Your task to perform on an android device: View the shopping cart on newegg. Add "dell xps" to the cart on newegg Image 0: 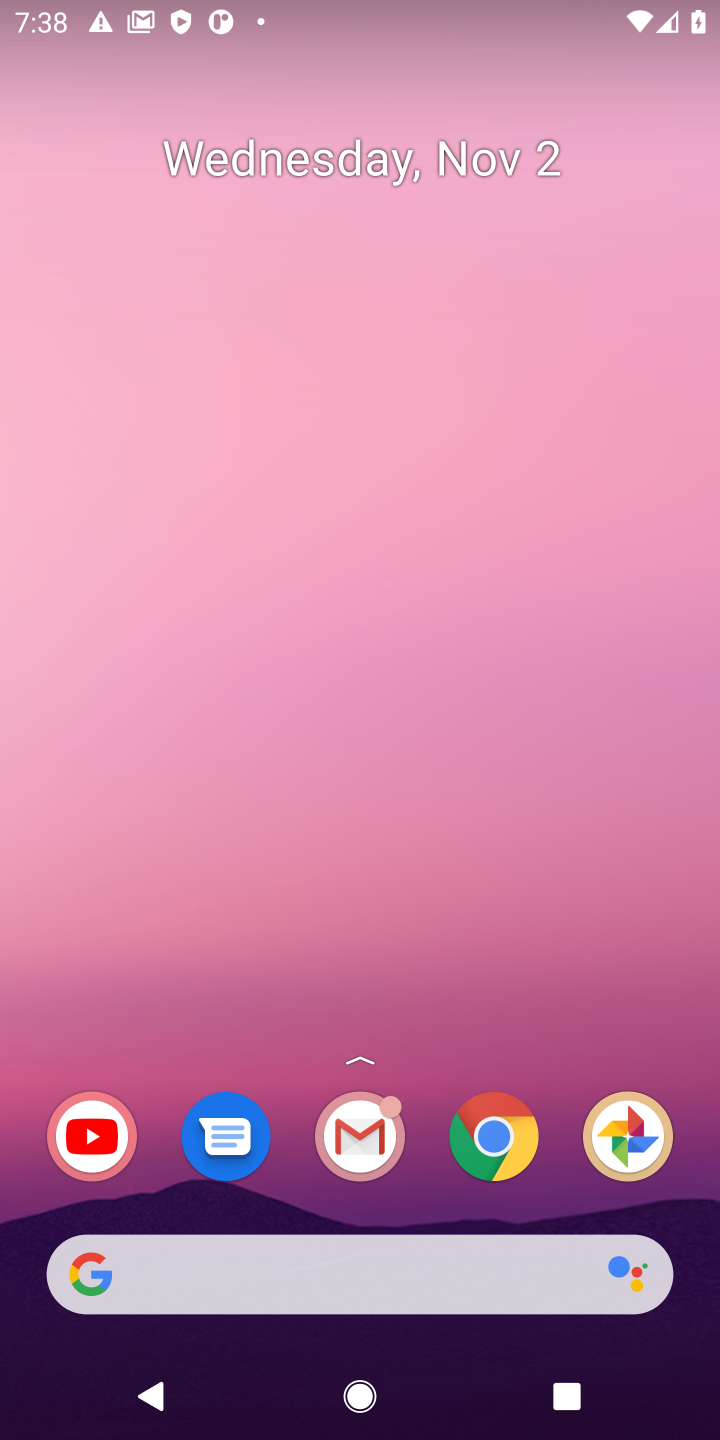
Step 0: drag from (405, 301) to (458, 48)
Your task to perform on an android device: View the shopping cart on newegg. Add "dell xps" to the cart on newegg Image 1: 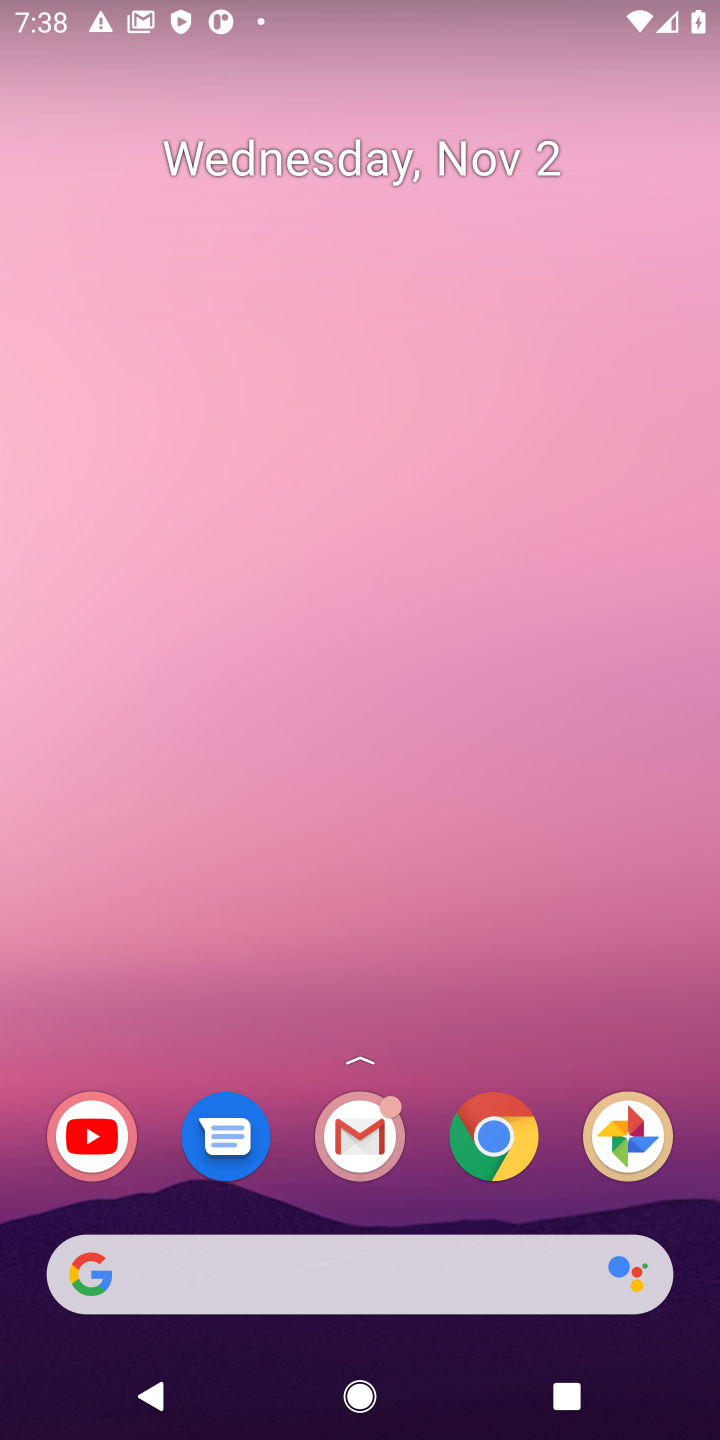
Step 1: drag from (390, 1248) to (92, 31)
Your task to perform on an android device: View the shopping cart on newegg. Add "dell xps" to the cart on newegg Image 2: 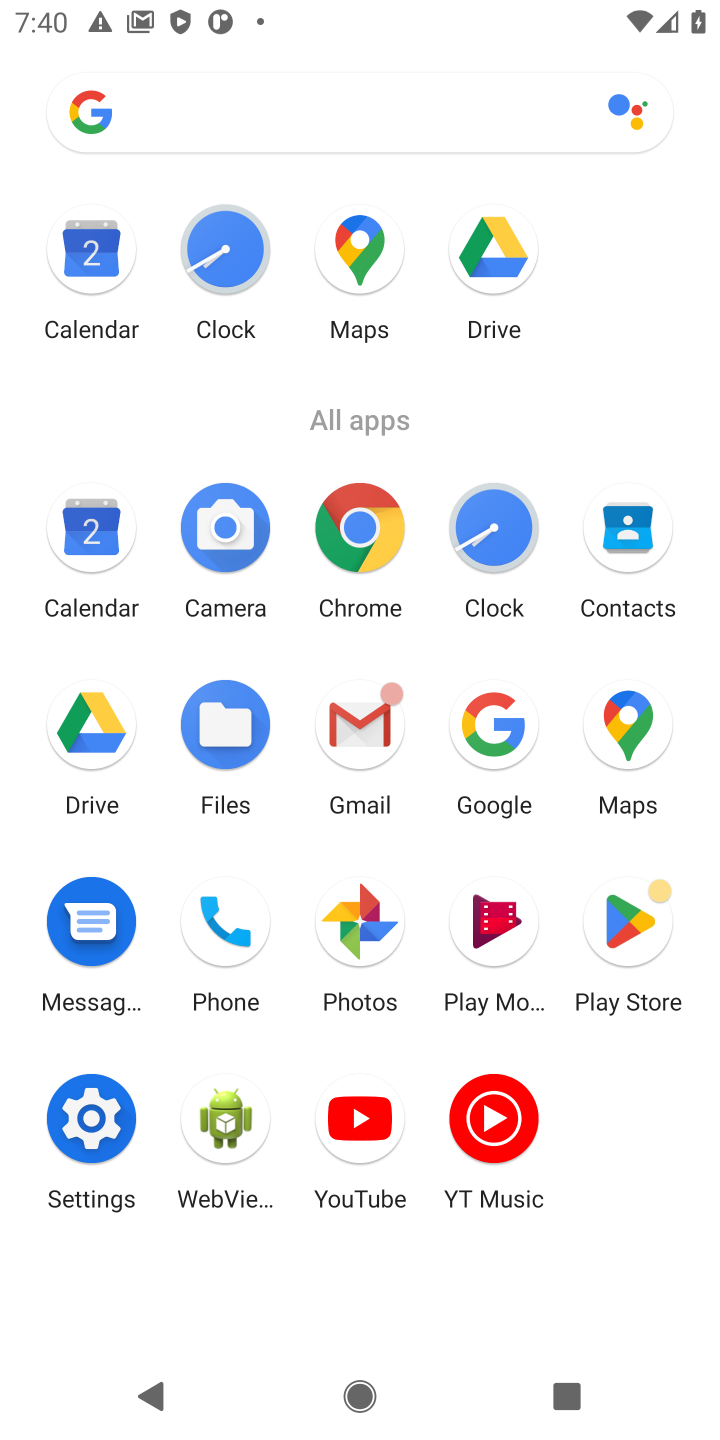
Step 2: click (473, 714)
Your task to perform on an android device: View the shopping cart on newegg. Add "dell xps" to the cart on newegg Image 3: 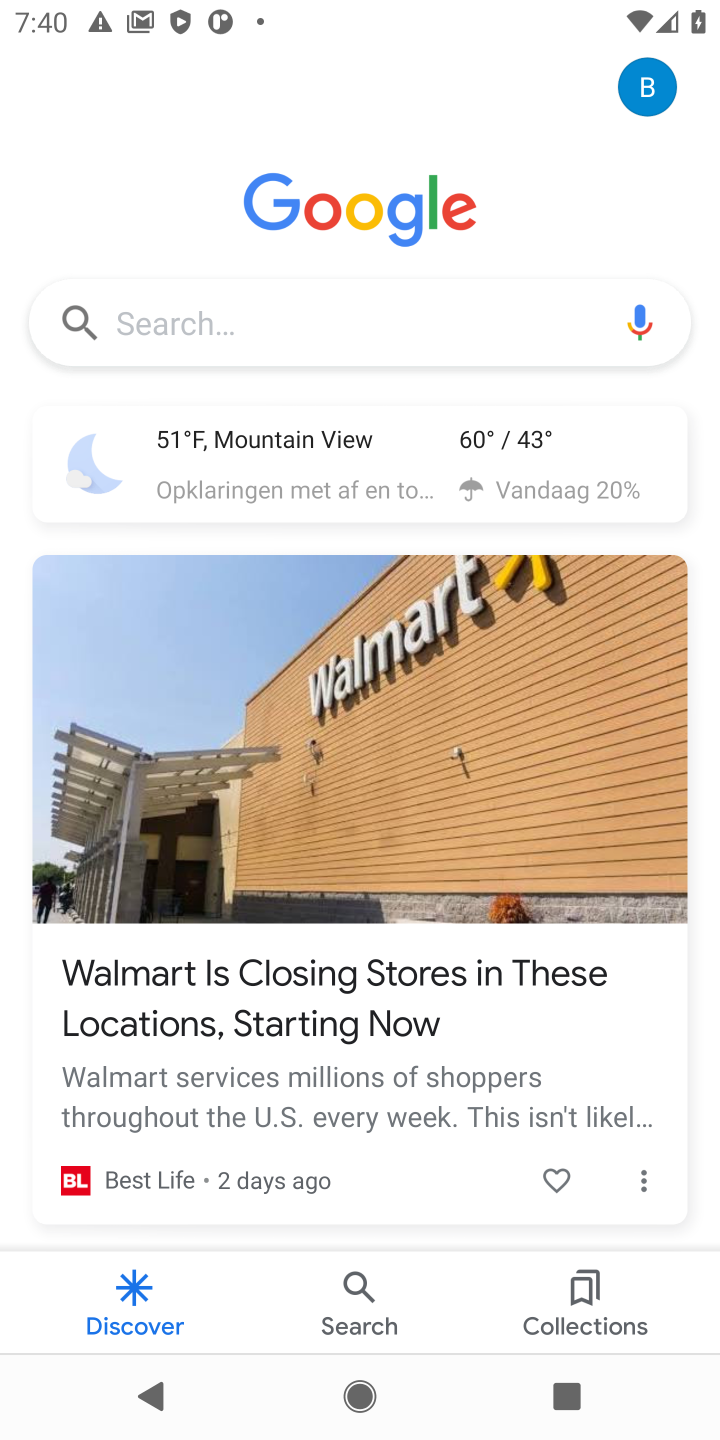
Step 3: click (374, 312)
Your task to perform on an android device: View the shopping cart on newegg. Add "dell xps" to the cart on newegg Image 4: 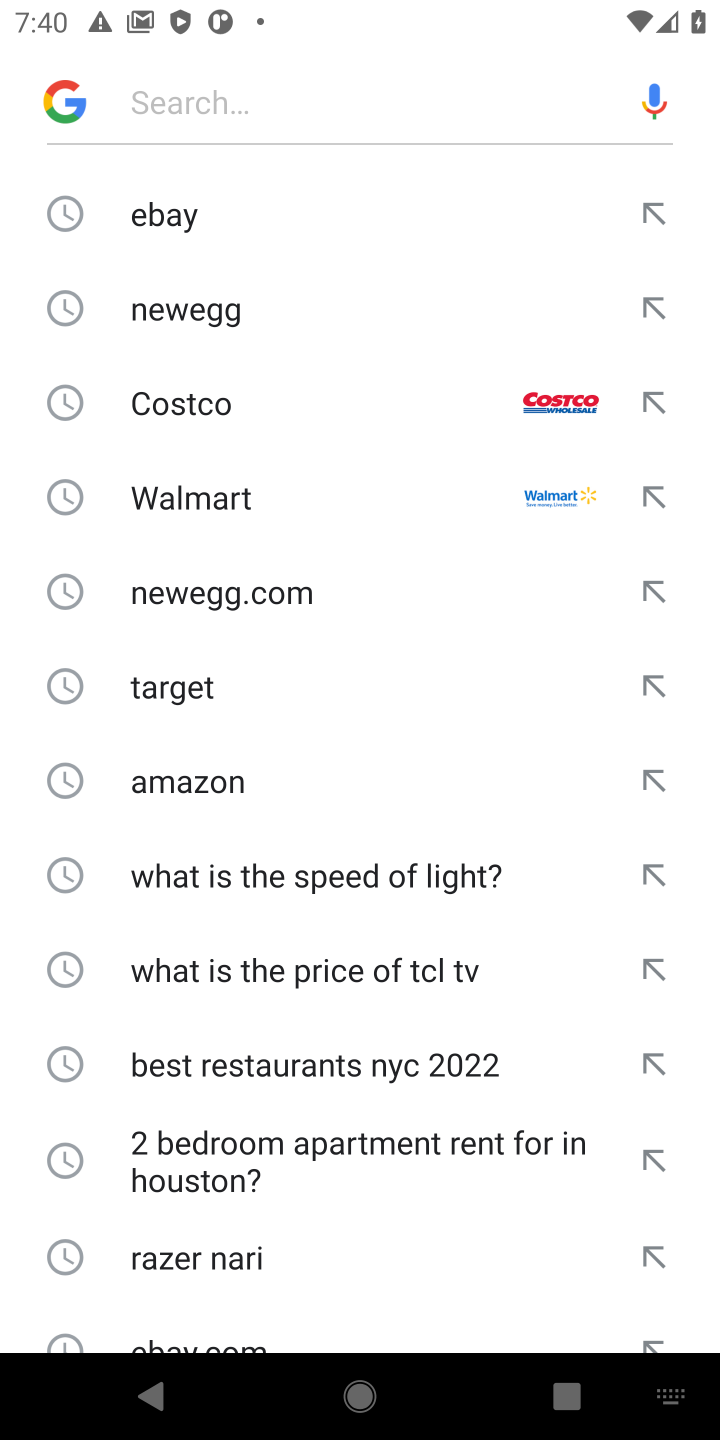
Step 4: type "newegg "
Your task to perform on an android device: View the shopping cart on newegg. Add "dell xps" to the cart on newegg Image 5: 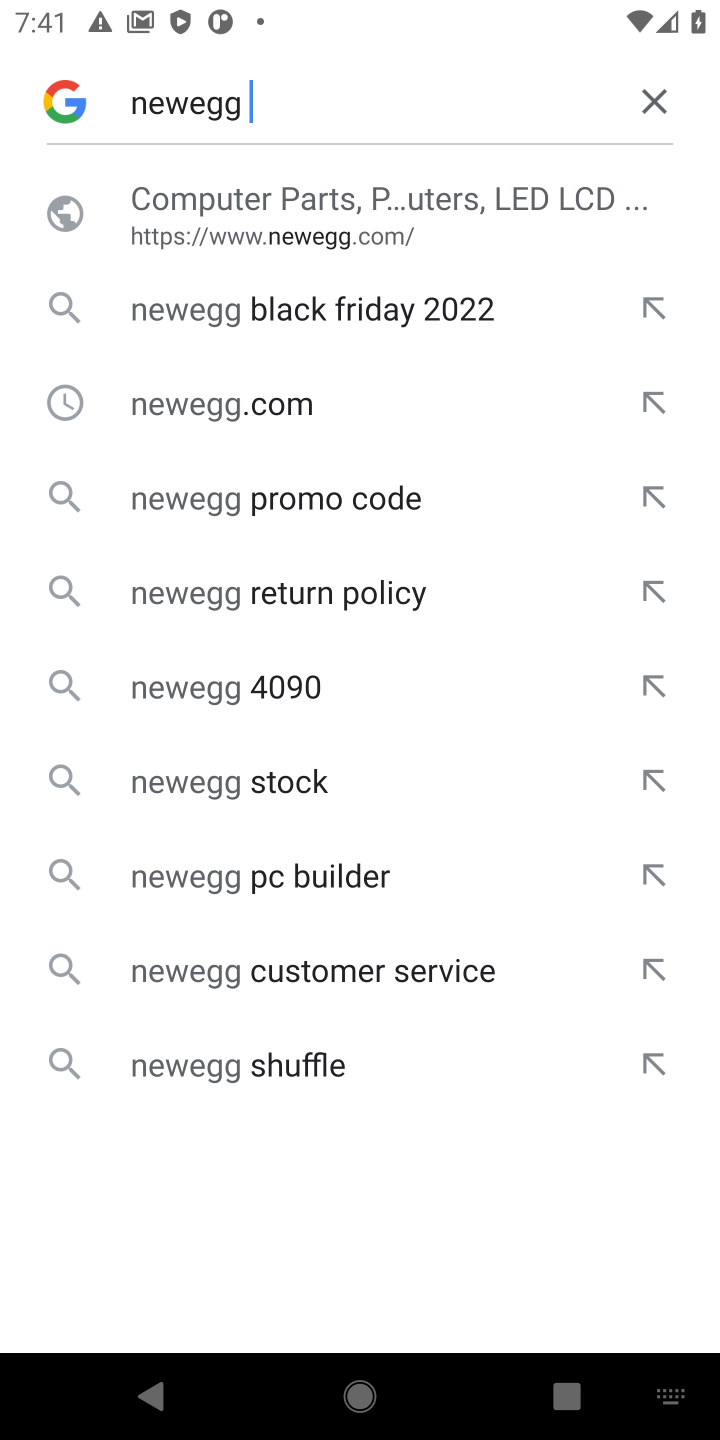
Step 5: click (232, 370)
Your task to perform on an android device: View the shopping cart on newegg. Add "dell xps" to the cart on newegg Image 6: 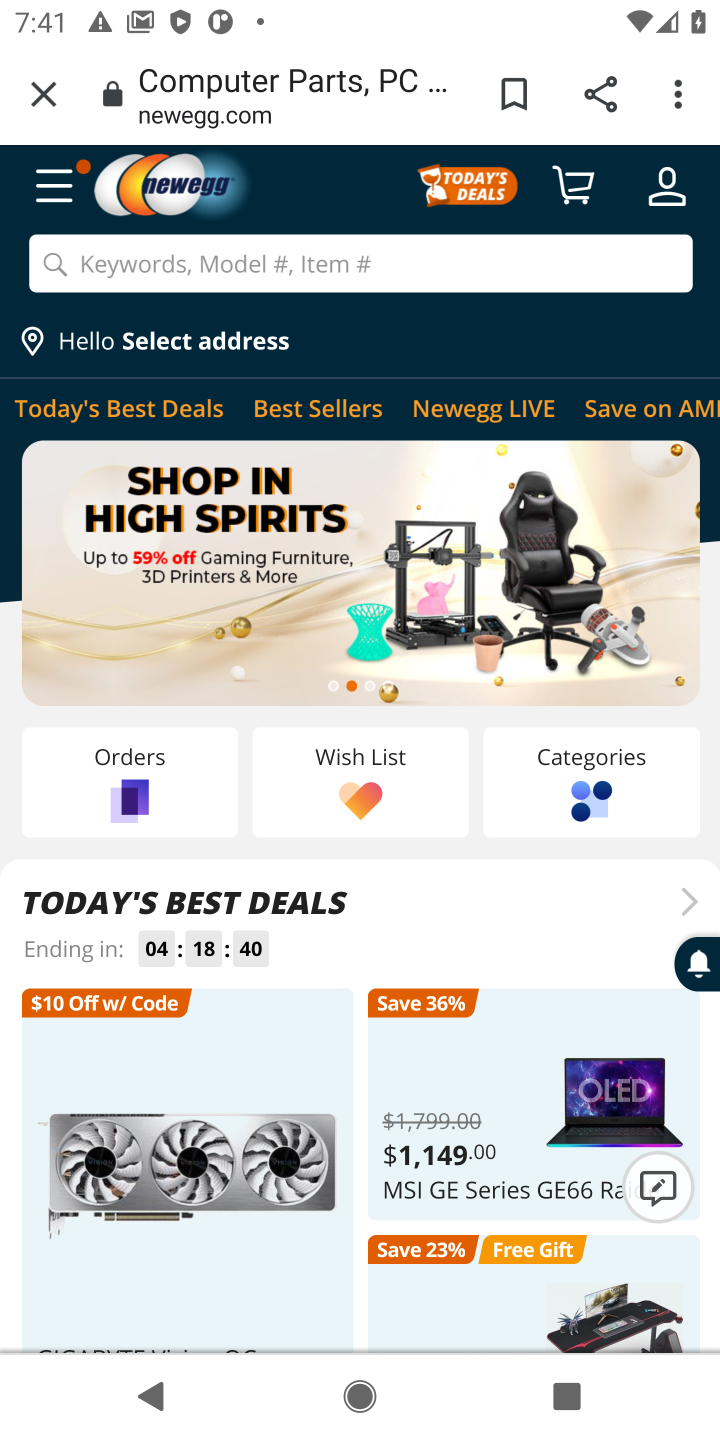
Step 6: click (212, 266)
Your task to perform on an android device: View the shopping cart on newegg. Add "dell xps" to the cart on newegg Image 7: 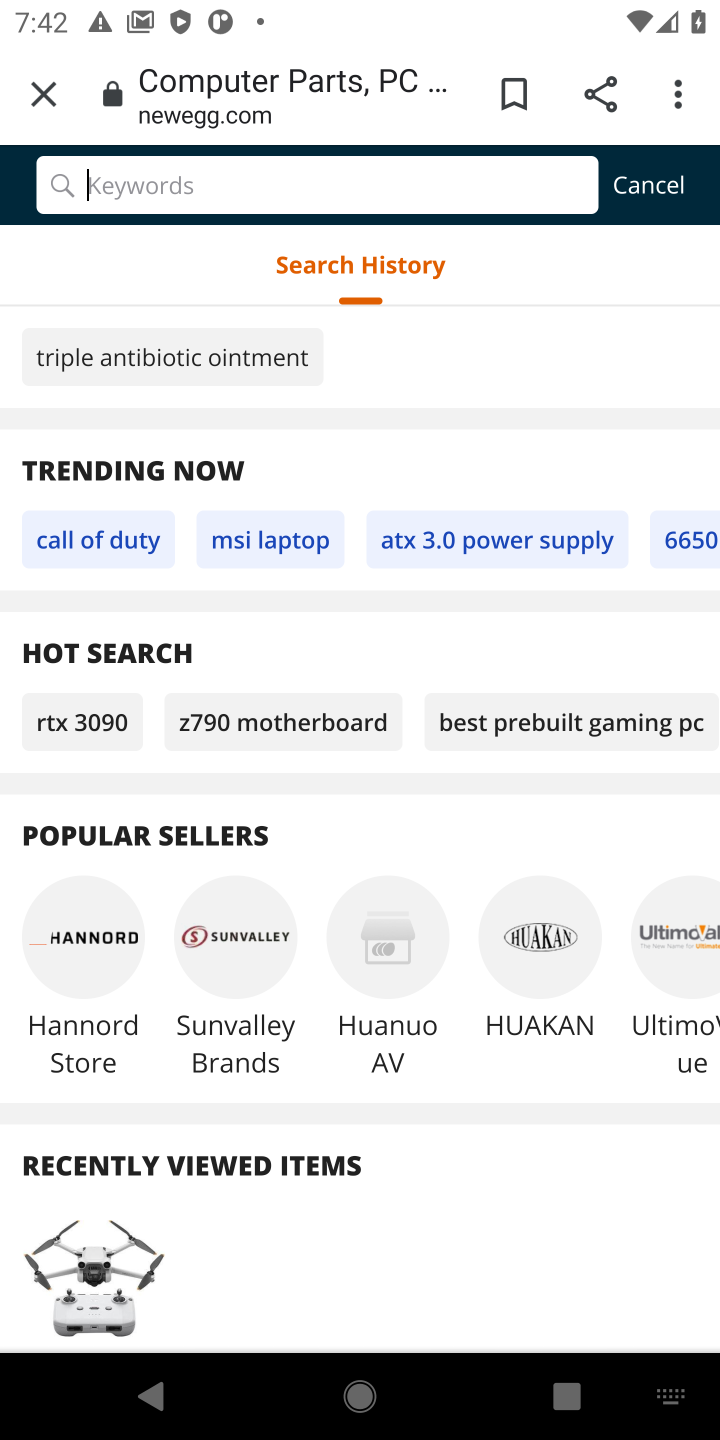
Step 7: click (336, 177)
Your task to perform on an android device: View the shopping cart on newegg. Add "dell xps" to the cart on newegg Image 8: 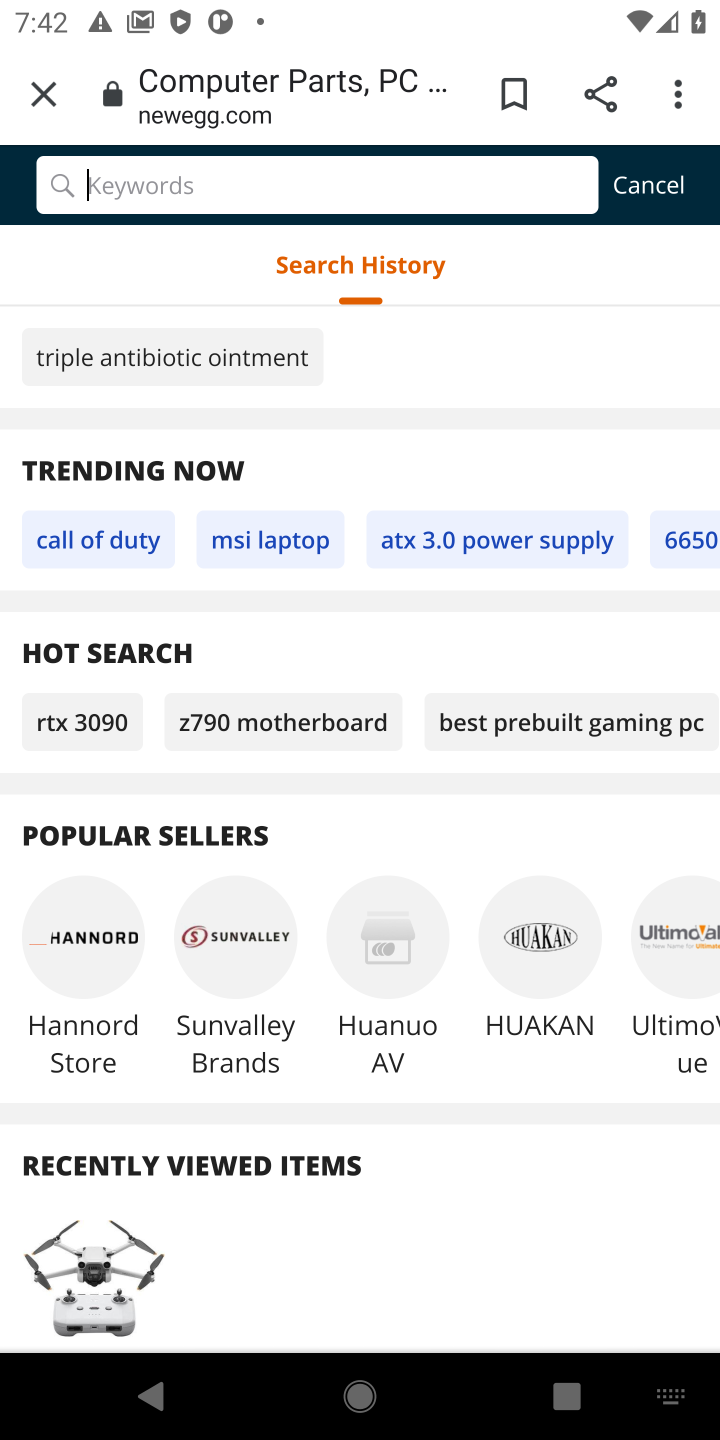
Step 8: type "dell xps" "
Your task to perform on an android device: View the shopping cart on newegg. Add "dell xps" to the cart on newegg Image 9: 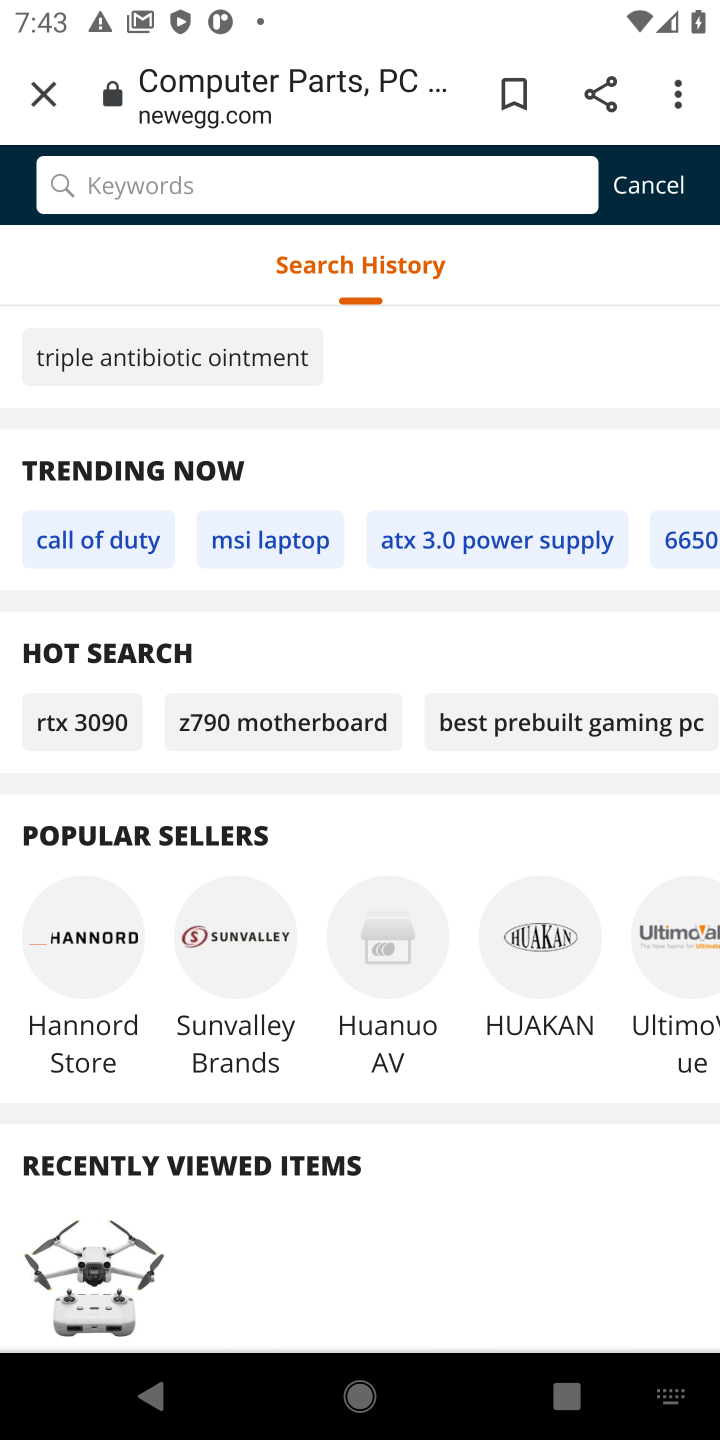
Step 9: drag from (338, 1166) to (377, 434)
Your task to perform on an android device: View the shopping cart on newegg. Add "dell xps" to the cart on newegg Image 10: 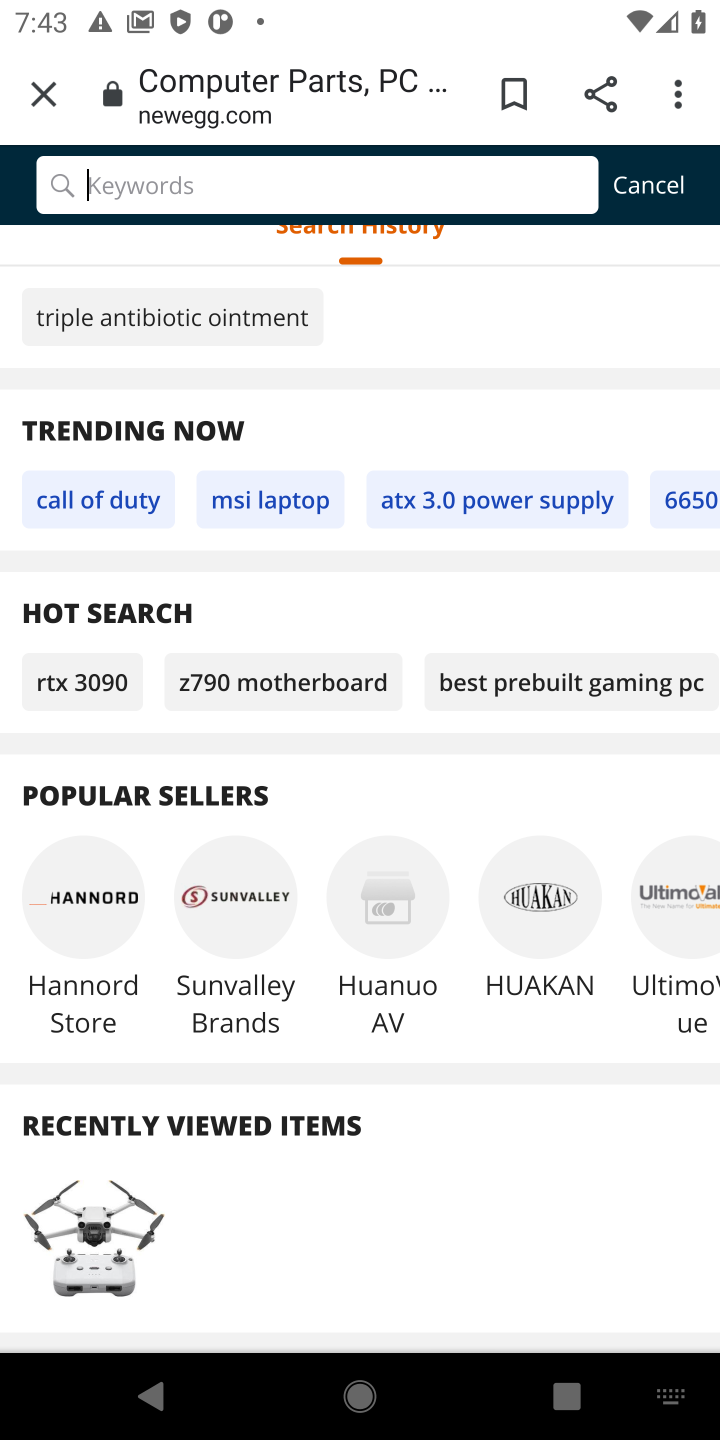
Step 10: drag from (373, 1264) to (386, 118)
Your task to perform on an android device: View the shopping cart on newegg. Add "dell xps" to the cart on newegg Image 11: 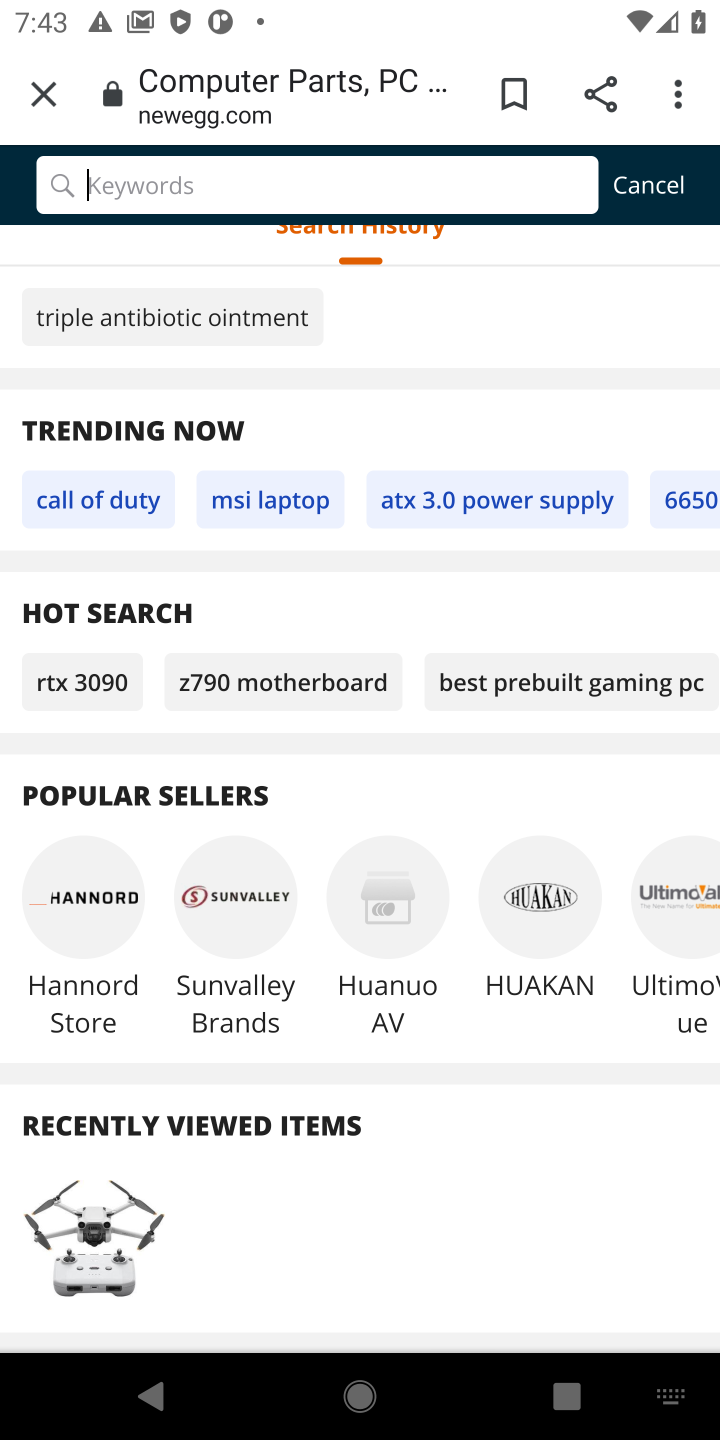
Step 11: click (373, 162)
Your task to perform on an android device: View the shopping cart on newegg. Add "dell xps" to the cart on newegg Image 12: 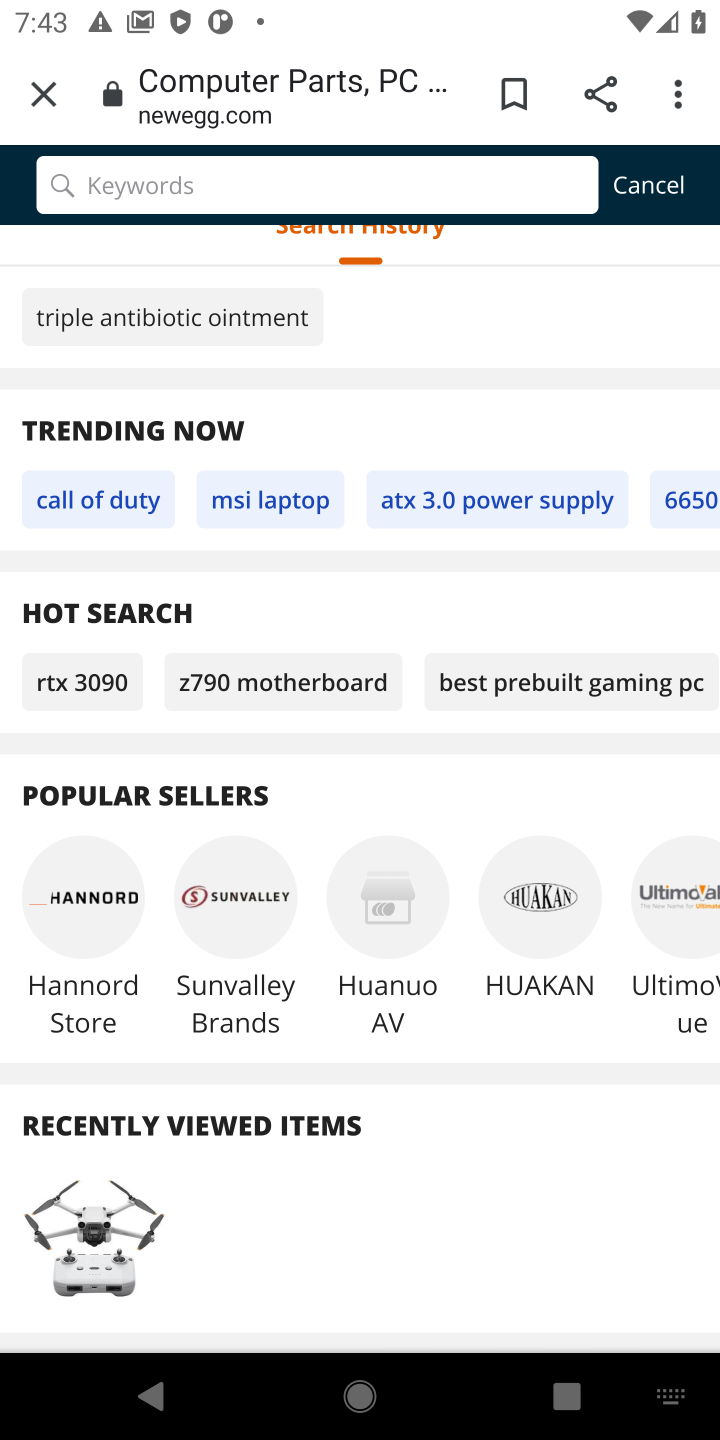
Step 12: click (363, 169)
Your task to perform on an android device: View the shopping cart on newegg. Add "dell xps" to the cart on newegg Image 13: 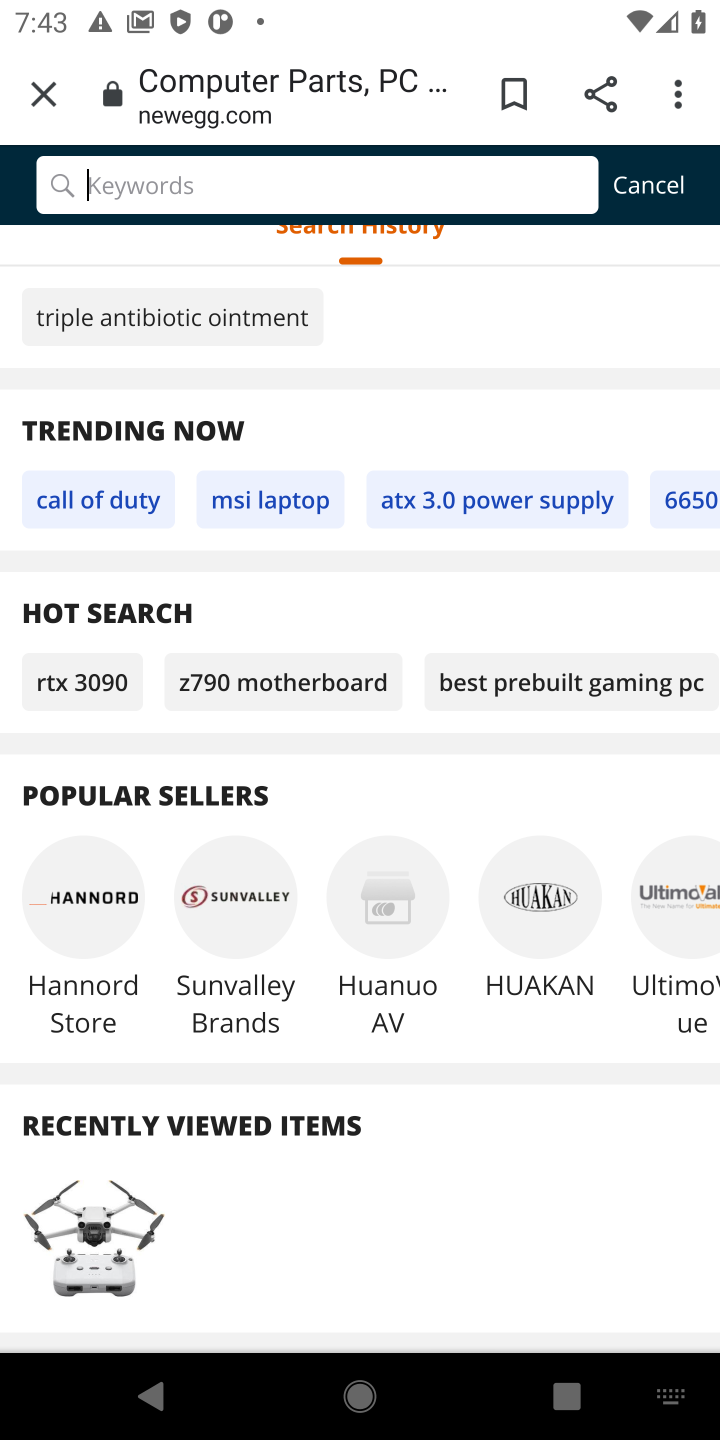
Step 13: type "dell xps" "
Your task to perform on an android device: View the shopping cart on newegg. Add "dell xps" to the cart on newegg Image 14: 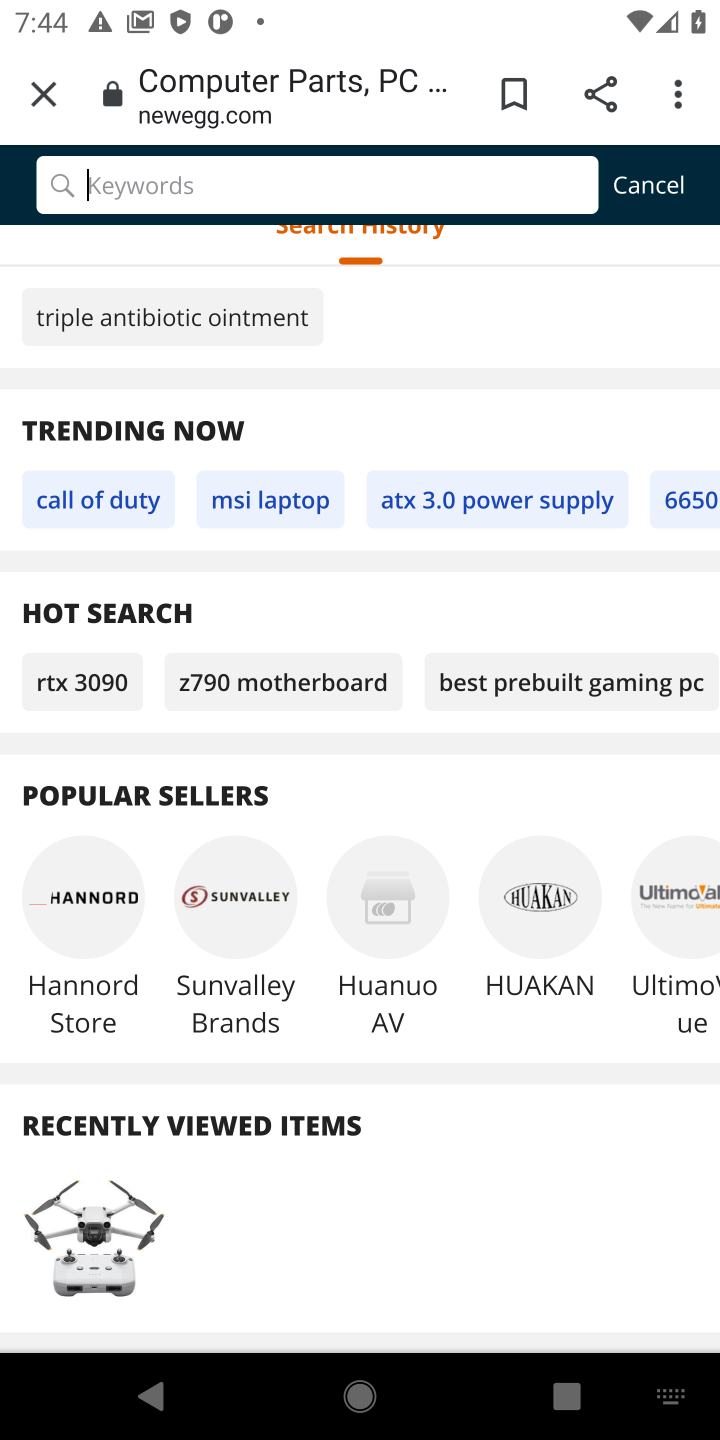
Step 14: click (370, 151)
Your task to perform on an android device: View the shopping cart on newegg. Add "dell xps" to the cart on newegg Image 15: 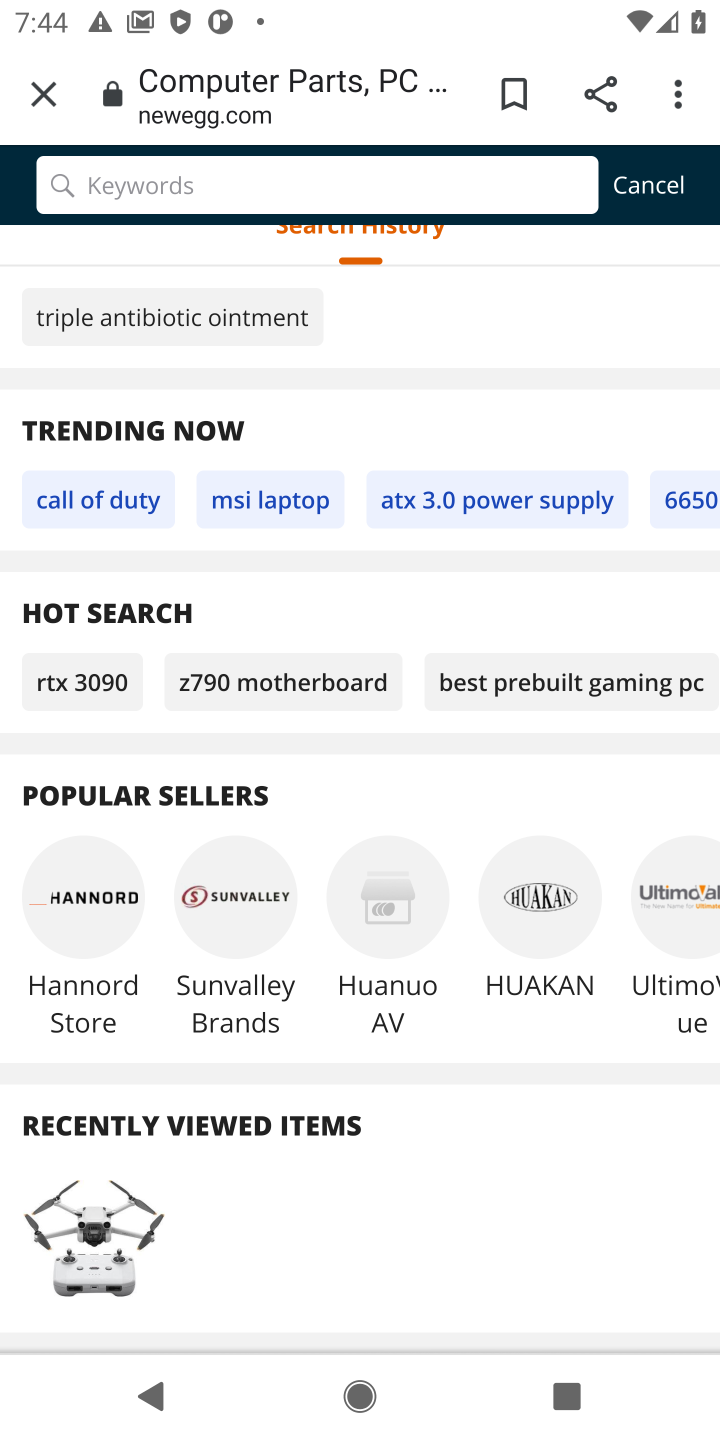
Step 15: click (370, 163)
Your task to perform on an android device: View the shopping cart on newegg. Add "dell xps" to the cart on newegg Image 16: 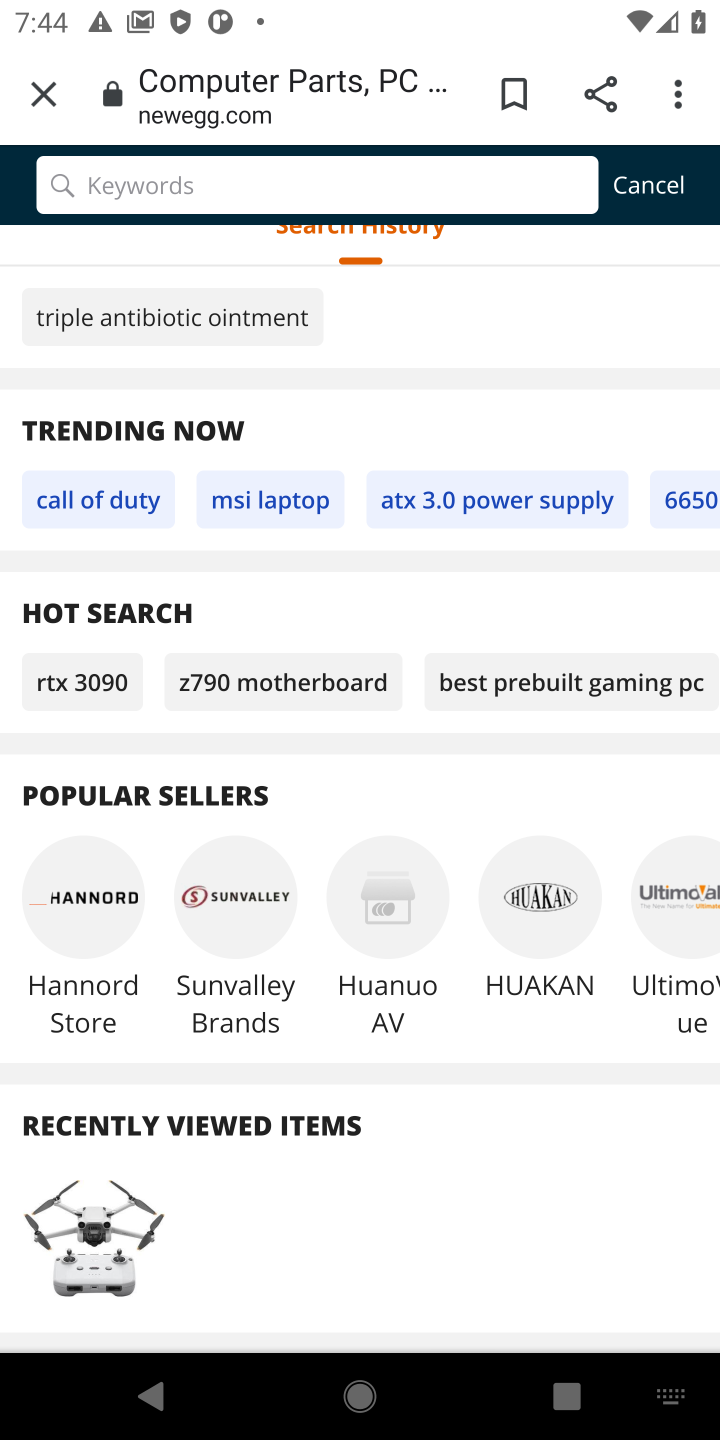
Step 16: type "dell xps "
Your task to perform on an android device: View the shopping cart on newegg. Add "dell xps" to the cart on newegg Image 17: 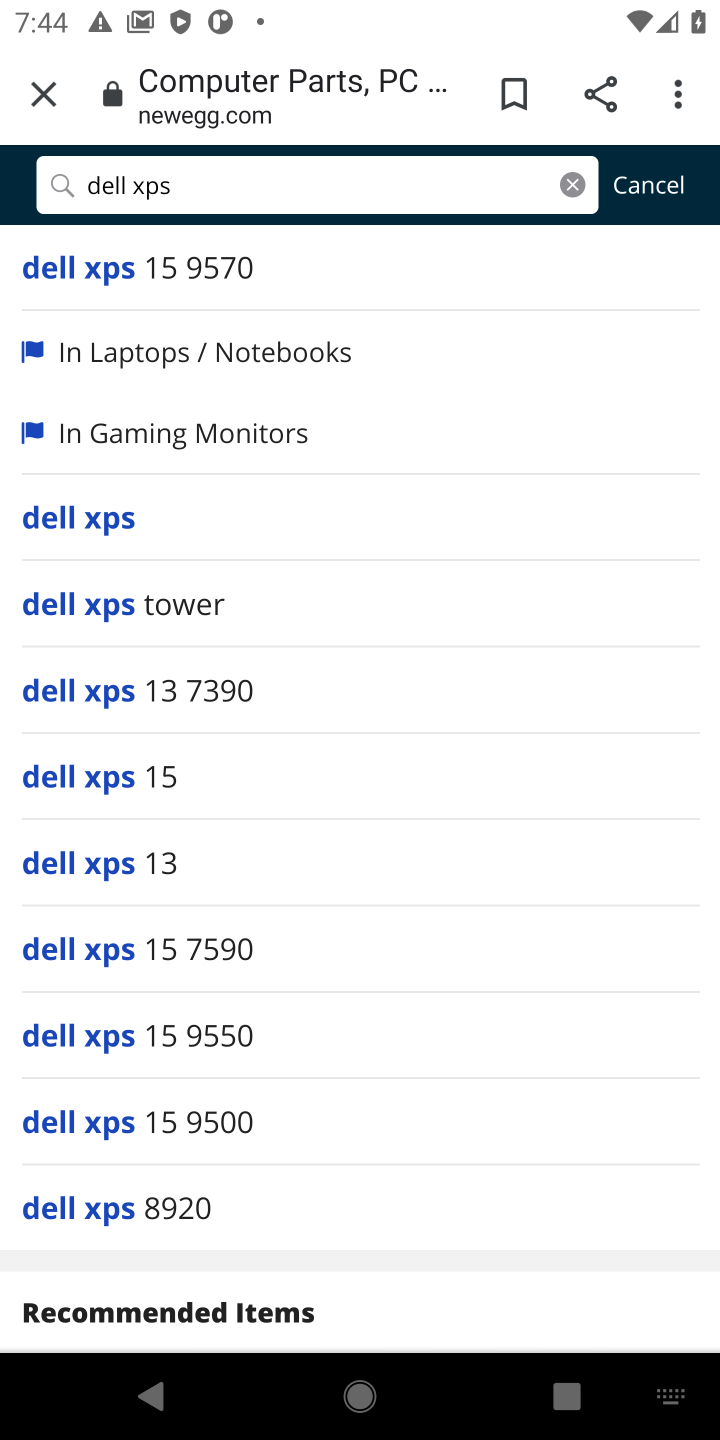
Step 17: click (28, 256)
Your task to perform on an android device: View the shopping cart on newegg. Add "dell xps" to the cart on newegg Image 18: 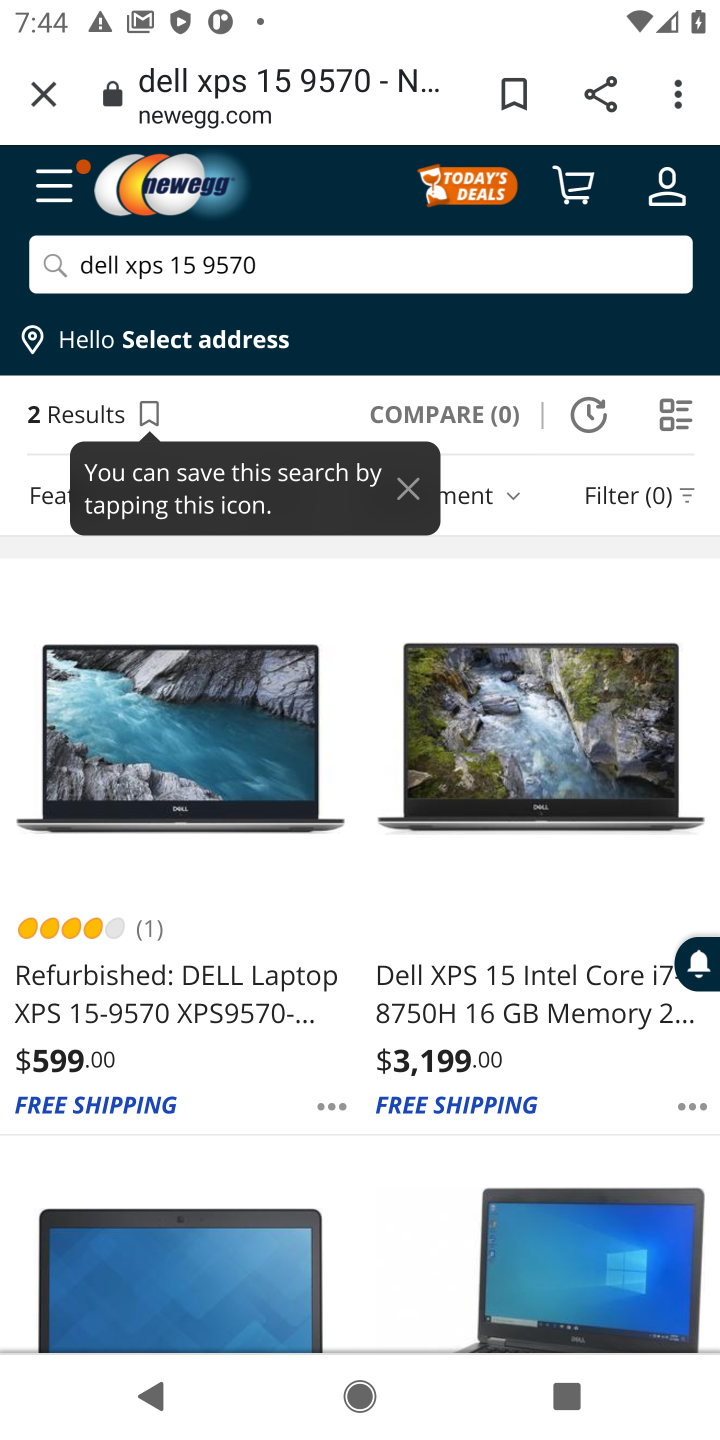
Step 18: click (138, 875)
Your task to perform on an android device: View the shopping cart on newegg. Add "dell xps" to the cart on newegg Image 19: 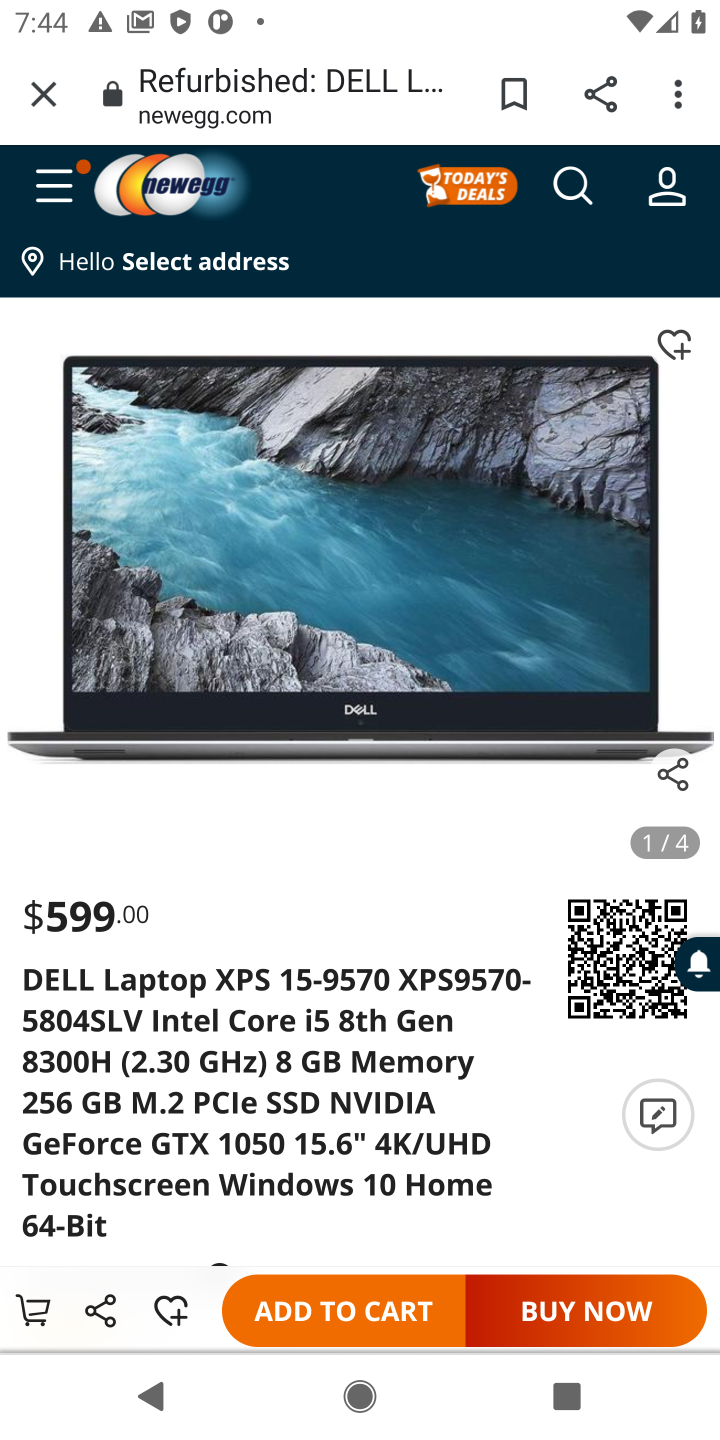
Step 19: click (346, 1313)
Your task to perform on an android device: View the shopping cart on newegg. Add "dell xps" to the cart on newegg Image 20: 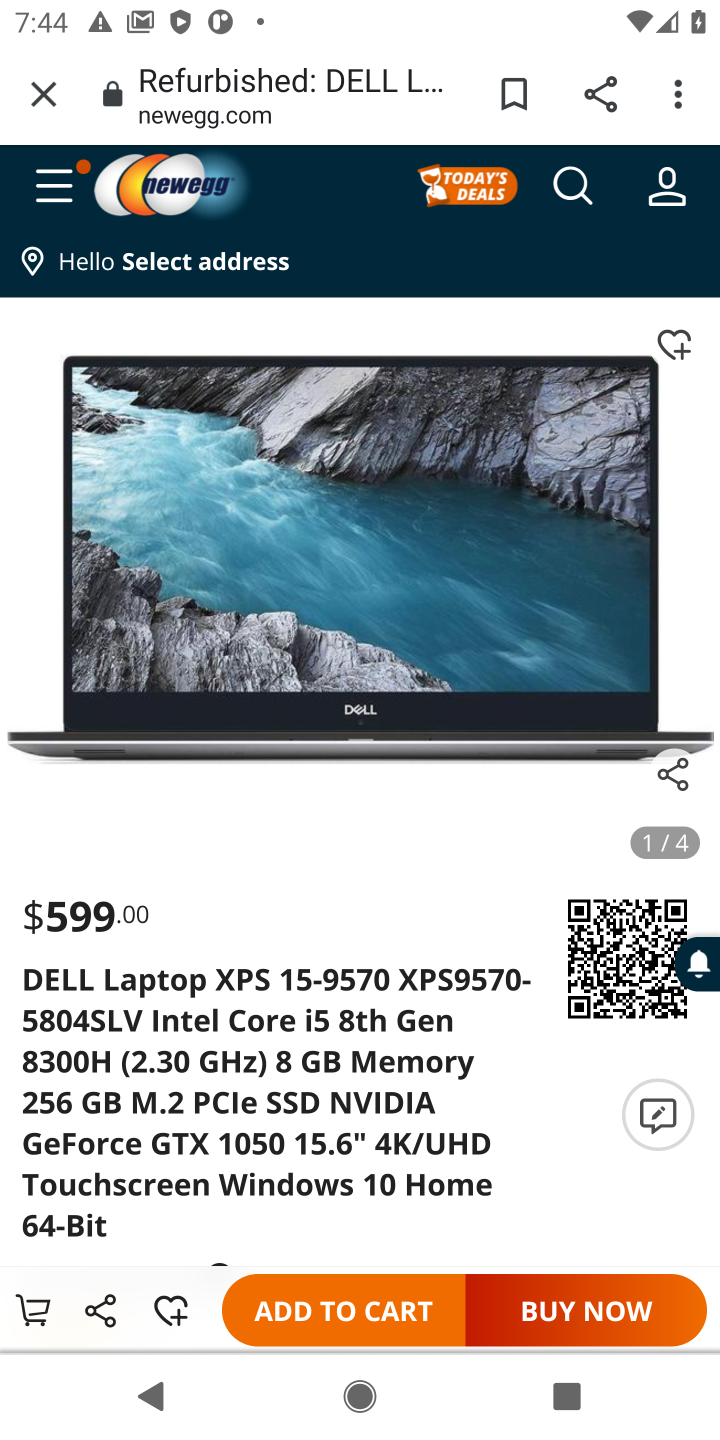
Step 20: click (346, 1309)
Your task to perform on an android device: View the shopping cart on newegg. Add "dell xps" to the cart on newegg Image 21: 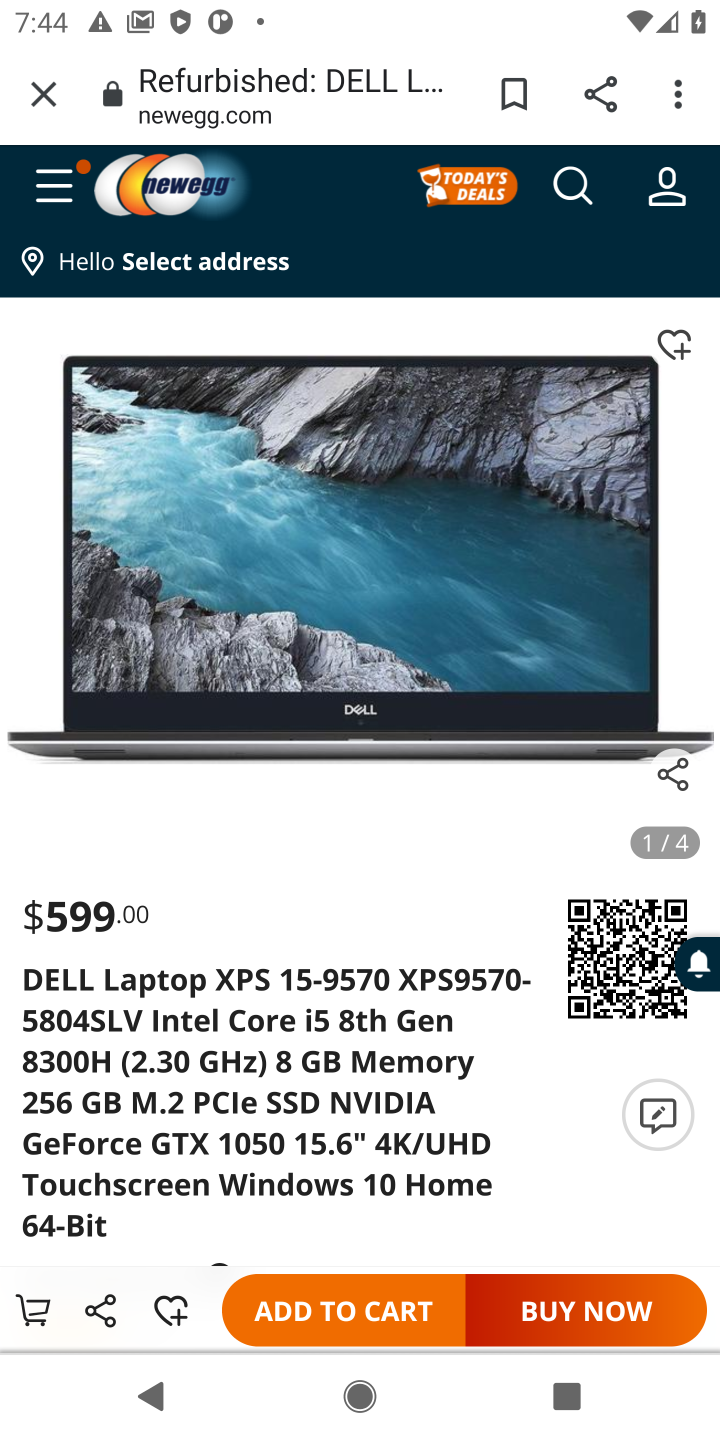
Step 21: click (329, 1298)
Your task to perform on an android device: View the shopping cart on newegg. Add "dell xps" to the cart on newegg Image 22: 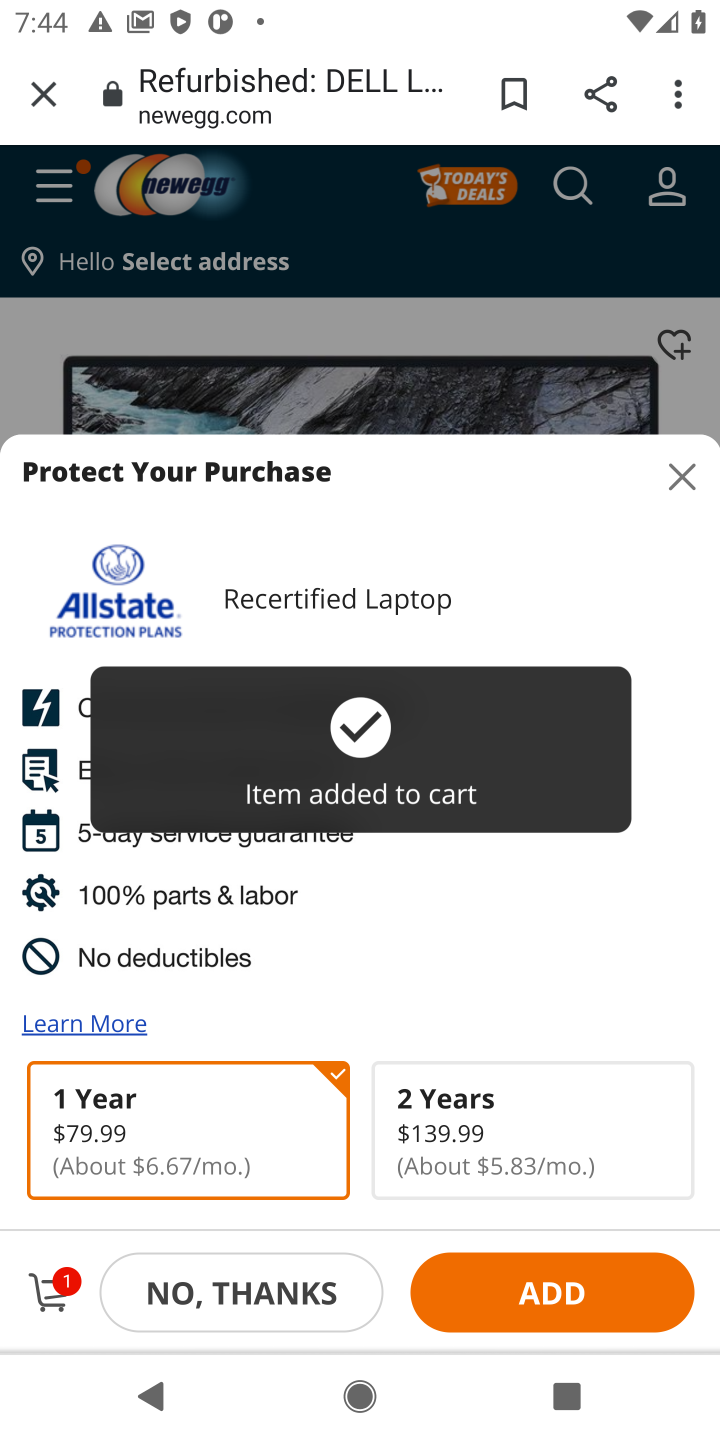
Step 22: task complete